Your task to perform on an android device: Open Android settings Image 0: 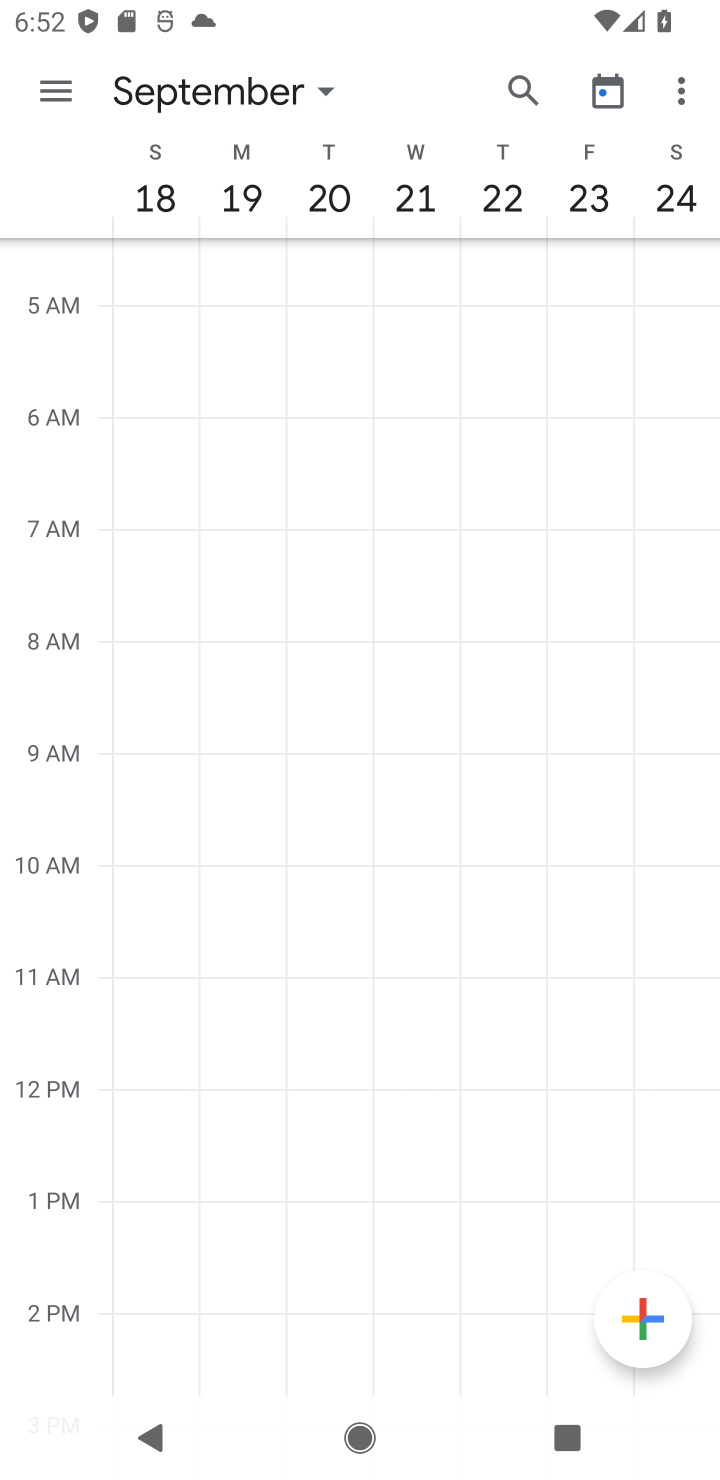
Step 0: press home button
Your task to perform on an android device: Open Android settings Image 1: 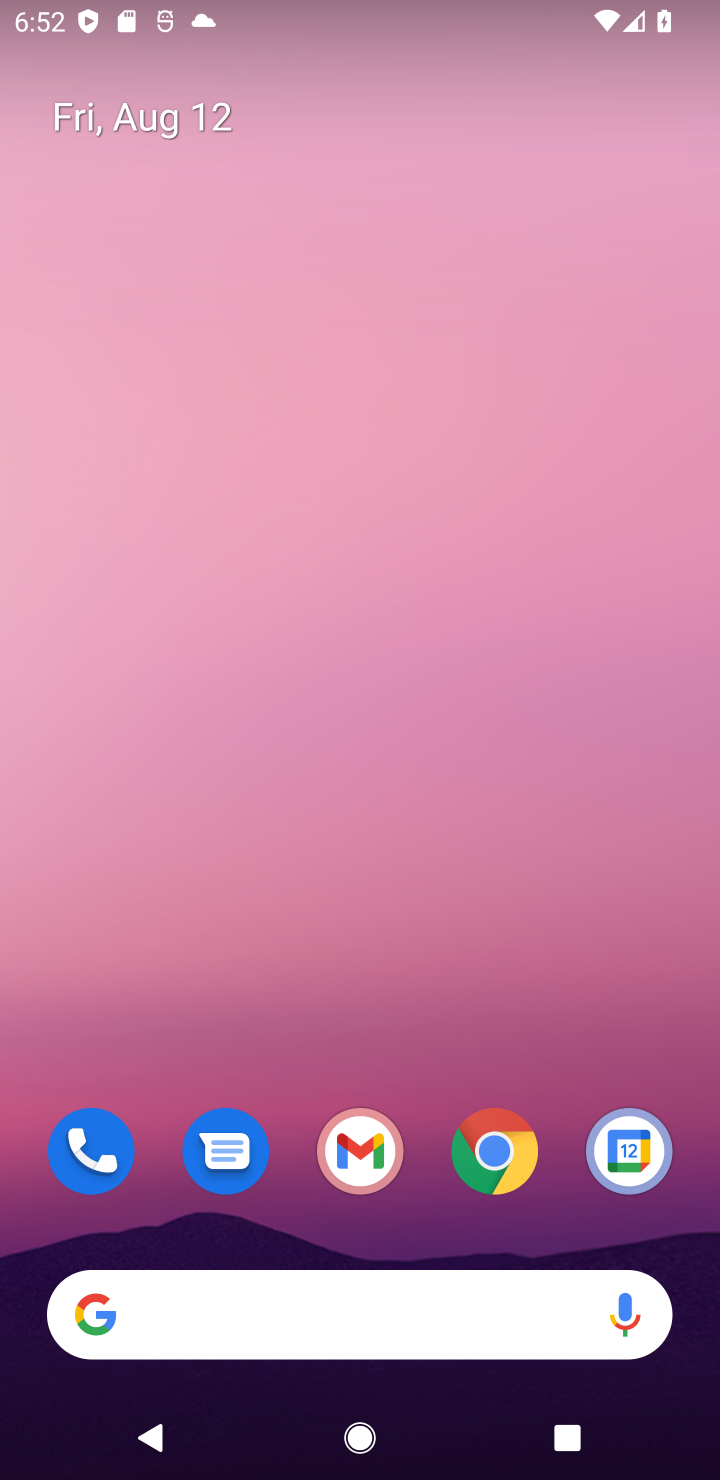
Step 1: drag from (408, 1065) to (416, 150)
Your task to perform on an android device: Open Android settings Image 2: 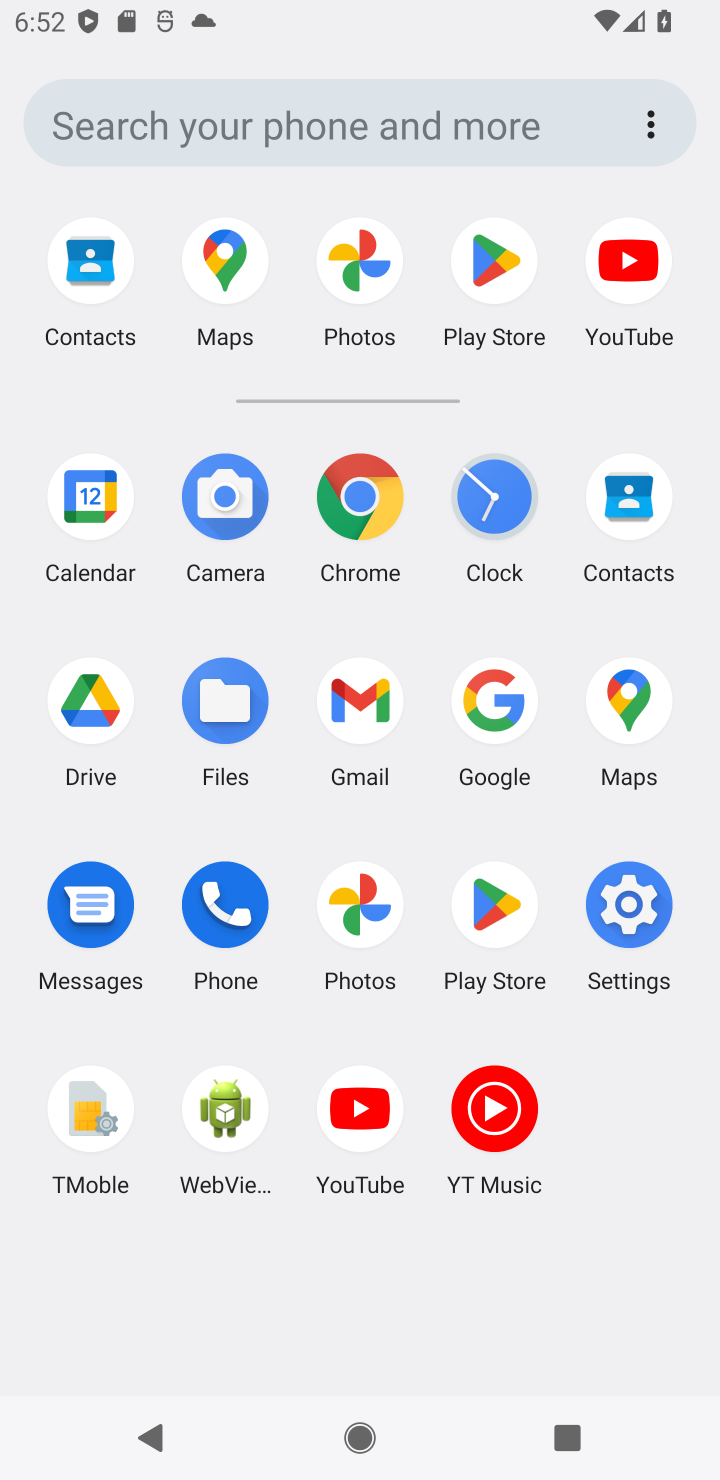
Step 2: click (649, 892)
Your task to perform on an android device: Open Android settings Image 3: 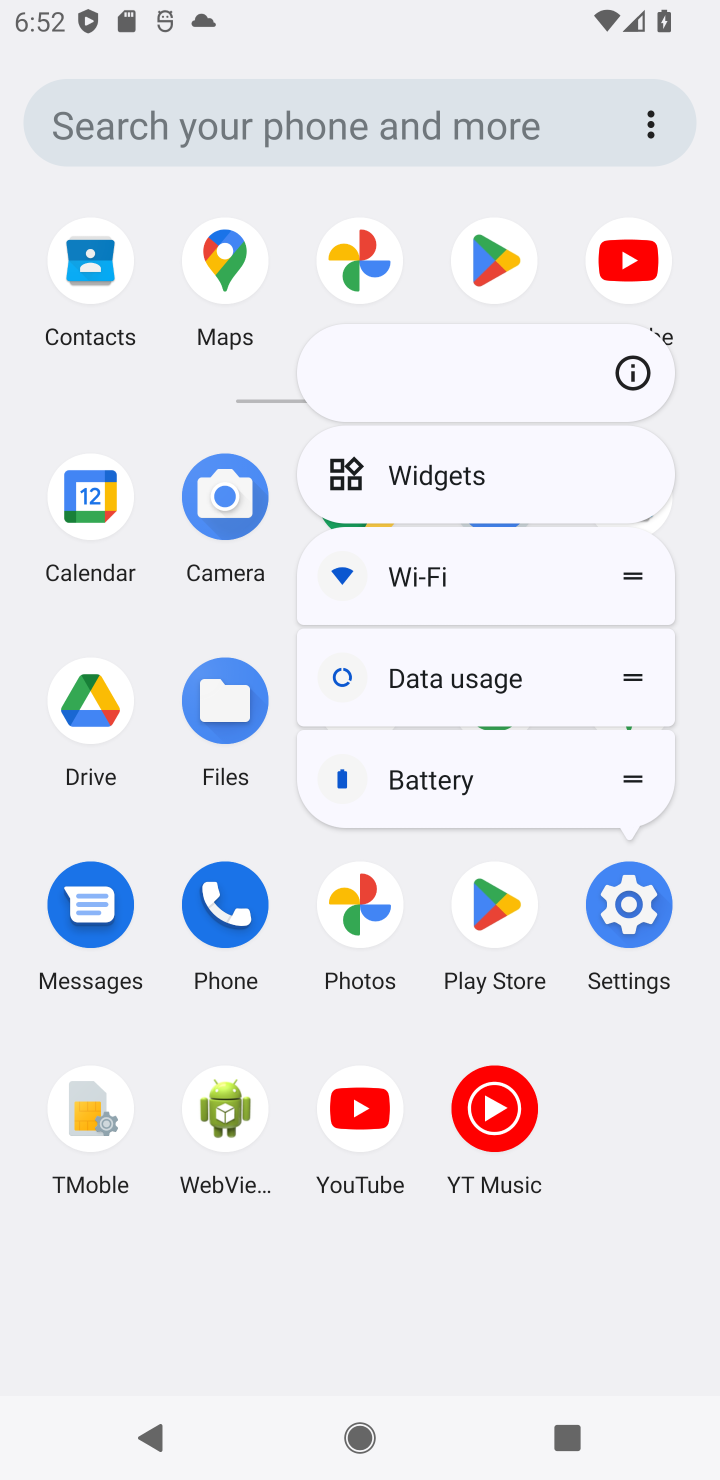
Step 3: click (645, 892)
Your task to perform on an android device: Open Android settings Image 4: 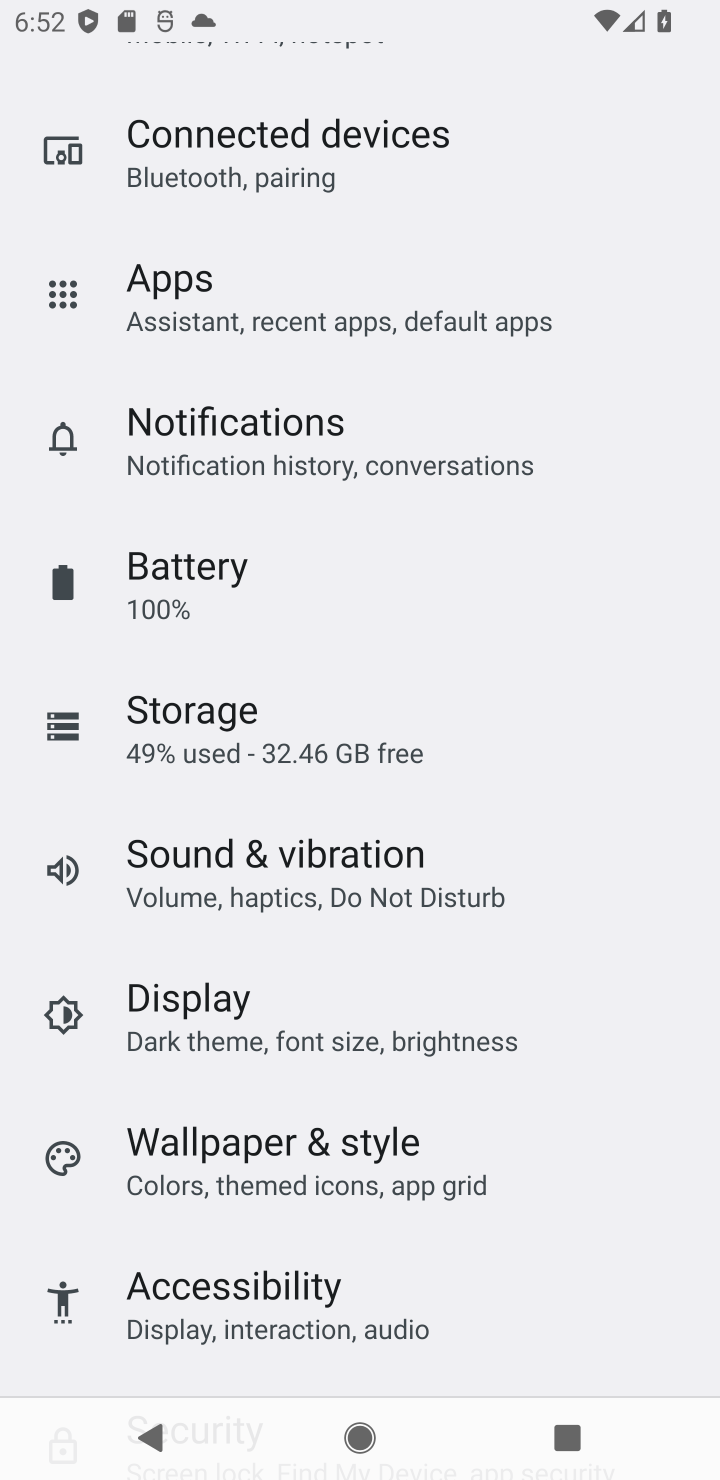
Step 4: task complete